Your task to perform on an android device: move a message to another label in the gmail app Image 0: 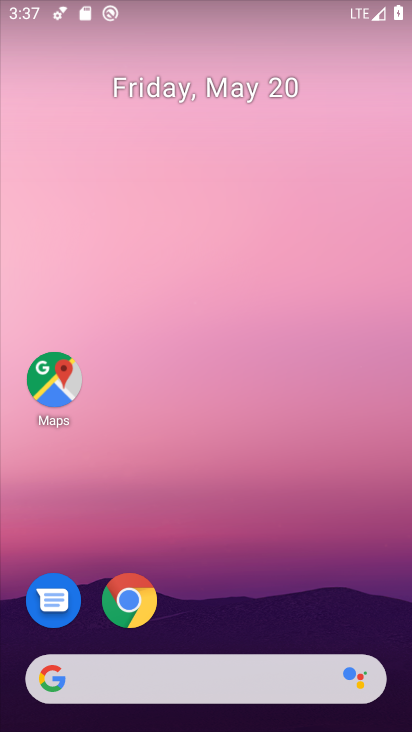
Step 0: drag from (381, 581) to (376, 288)
Your task to perform on an android device: move a message to another label in the gmail app Image 1: 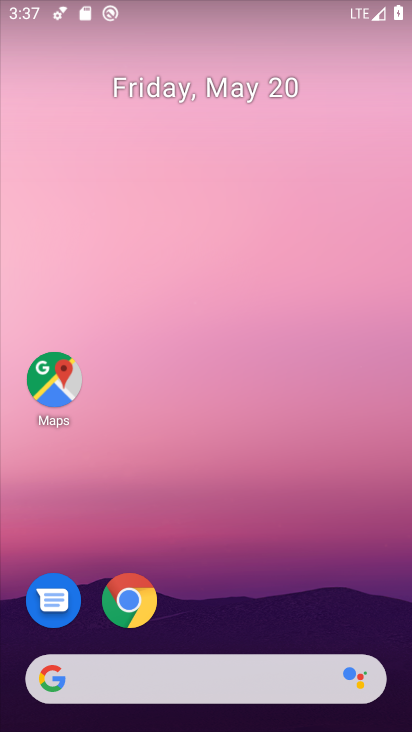
Step 1: drag from (377, 614) to (375, 190)
Your task to perform on an android device: move a message to another label in the gmail app Image 2: 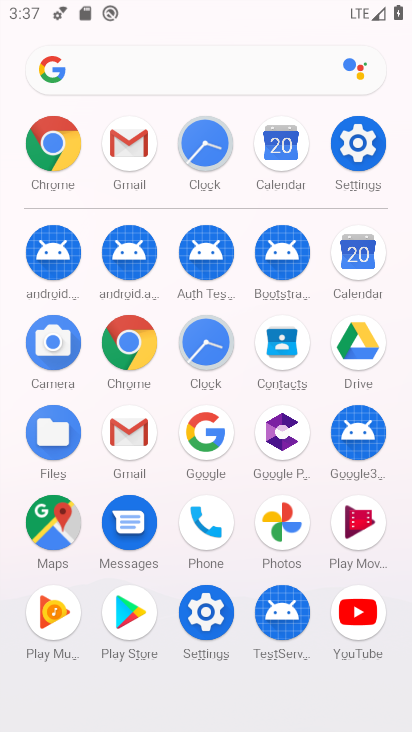
Step 2: drag from (376, 634) to (388, 127)
Your task to perform on an android device: move a message to another label in the gmail app Image 3: 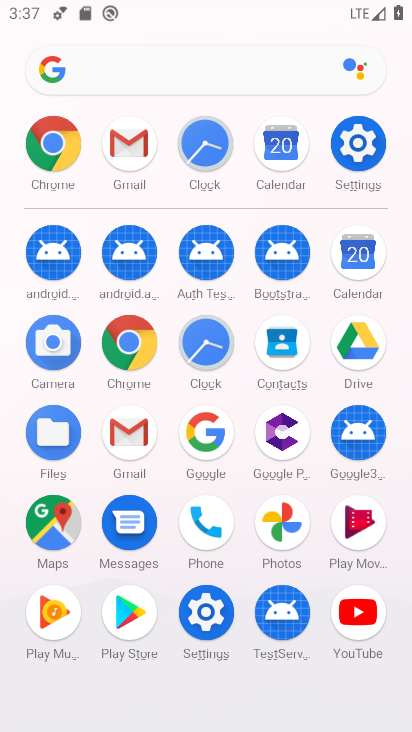
Step 3: click (136, 443)
Your task to perform on an android device: move a message to another label in the gmail app Image 4: 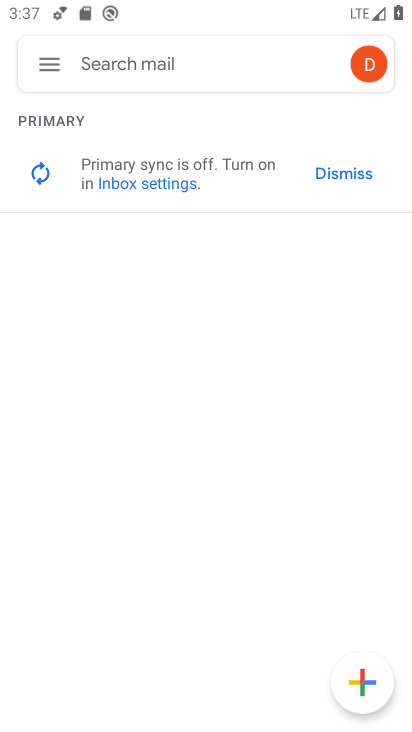
Step 4: click (49, 66)
Your task to perform on an android device: move a message to another label in the gmail app Image 5: 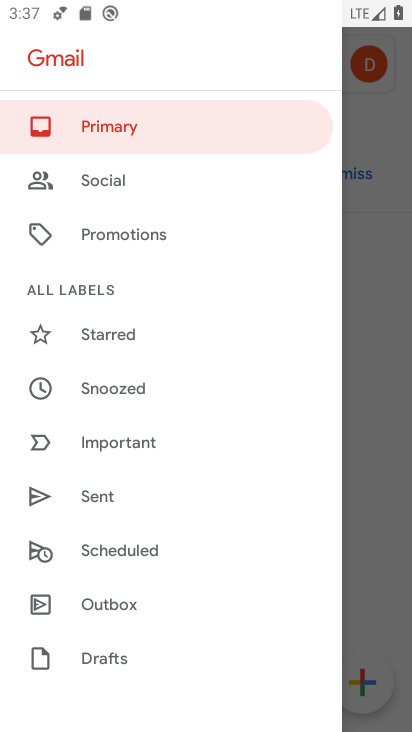
Step 5: task complete